Your task to perform on an android device: change your default location settings in chrome Image 0: 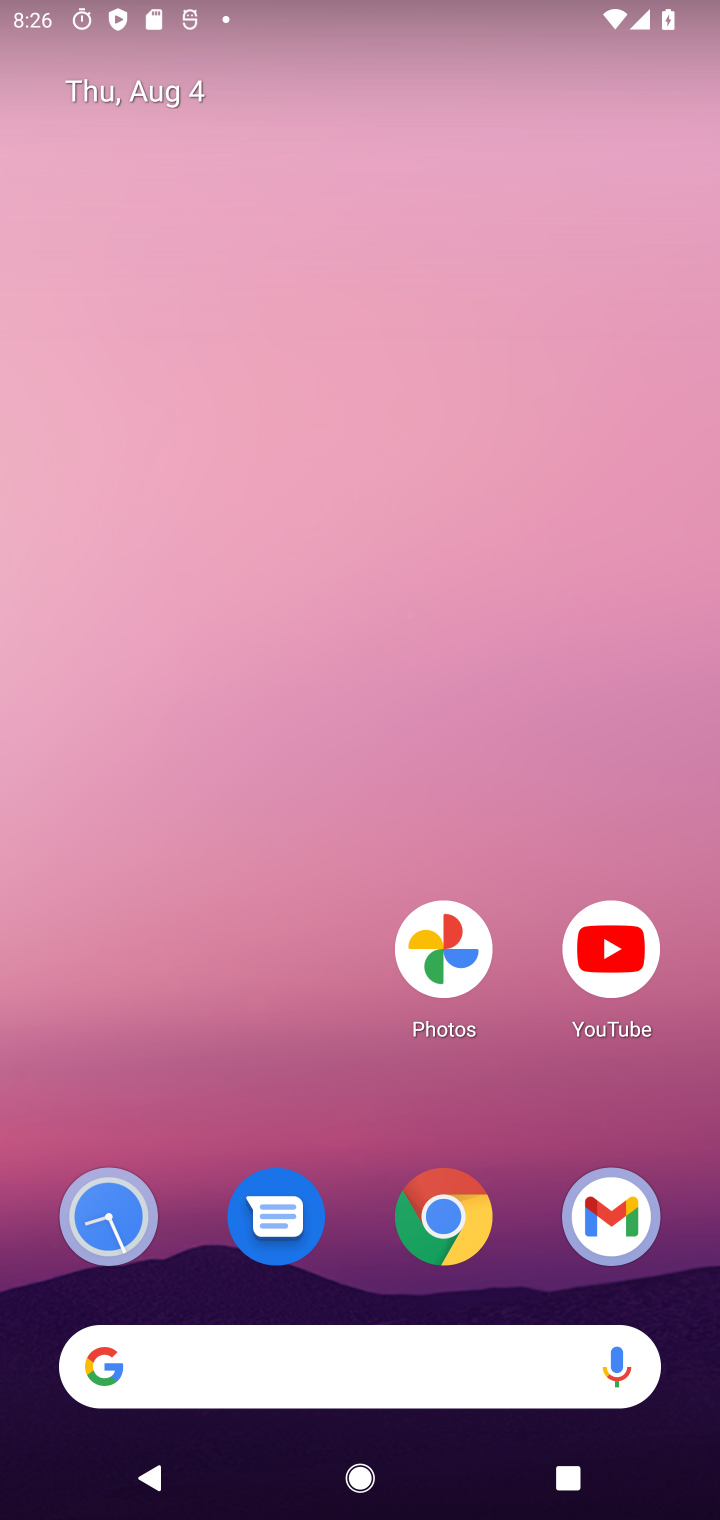
Step 0: drag from (342, 1303) to (358, 98)
Your task to perform on an android device: change your default location settings in chrome Image 1: 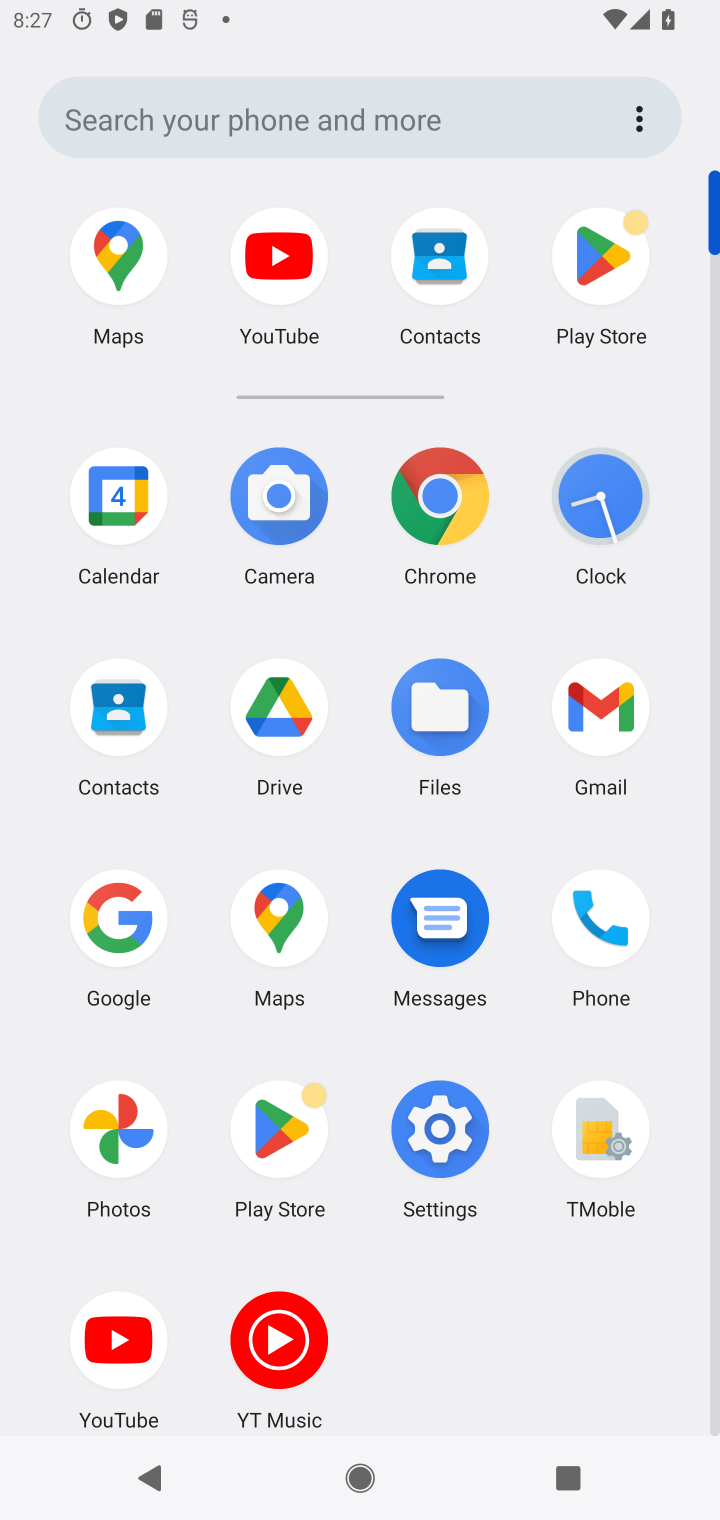
Step 1: click (437, 500)
Your task to perform on an android device: change your default location settings in chrome Image 2: 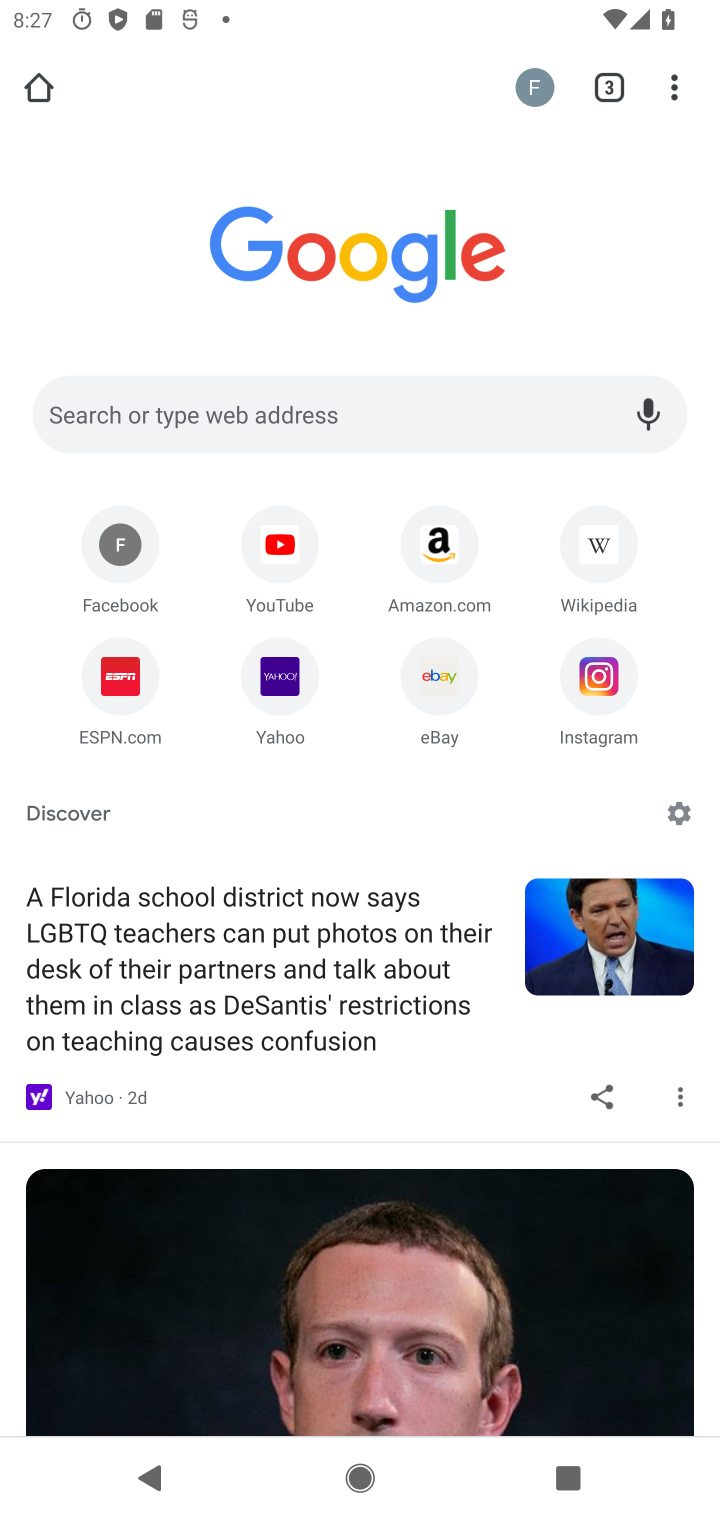
Step 2: click (672, 92)
Your task to perform on an android device: change your default location settings in chrome Image 3: 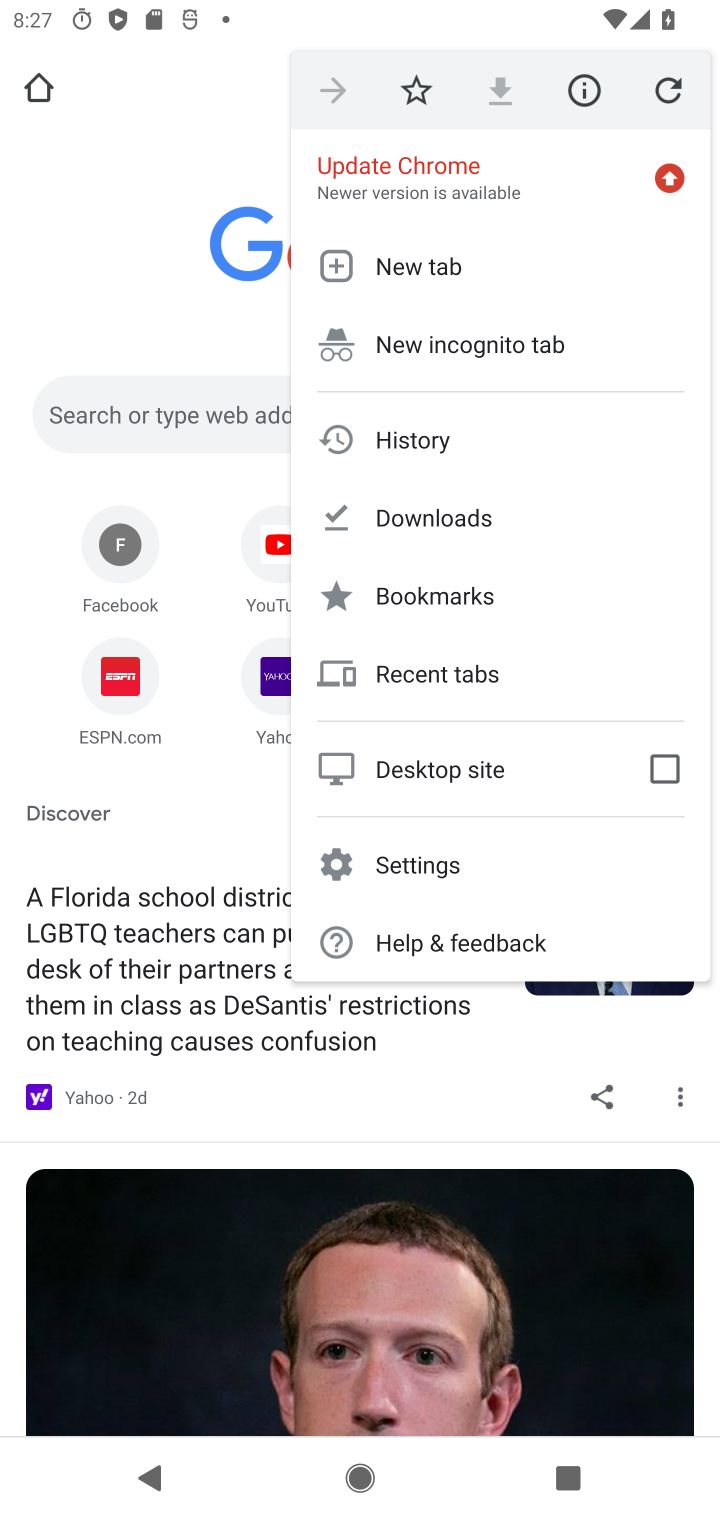
Step 3: click (404, 867)
Your task to perform on an android device: change your default location settings in chrome Image 4: 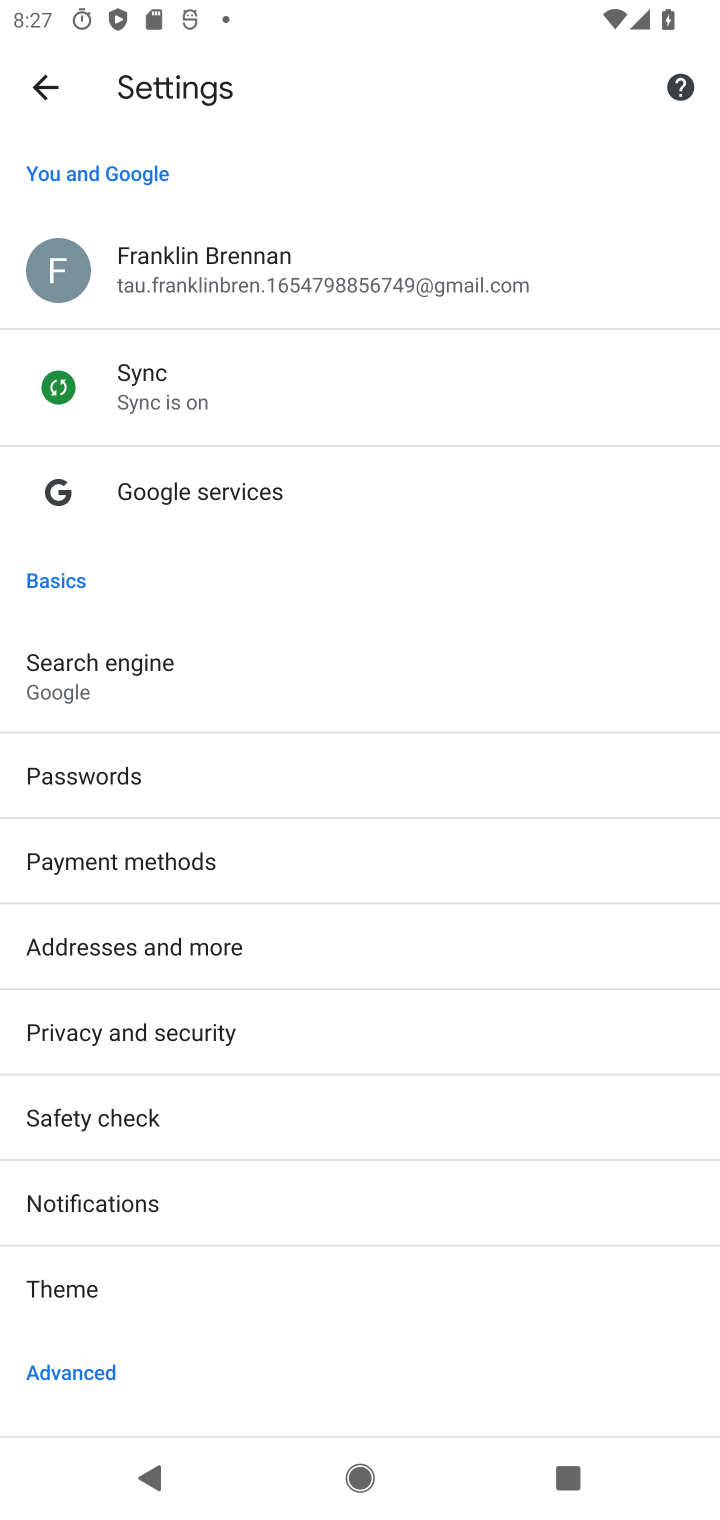
Step 4: drag from (304, 1339) to (355, 749)
Your task to perform on an android device: change your default location settings in chrome Image 5: 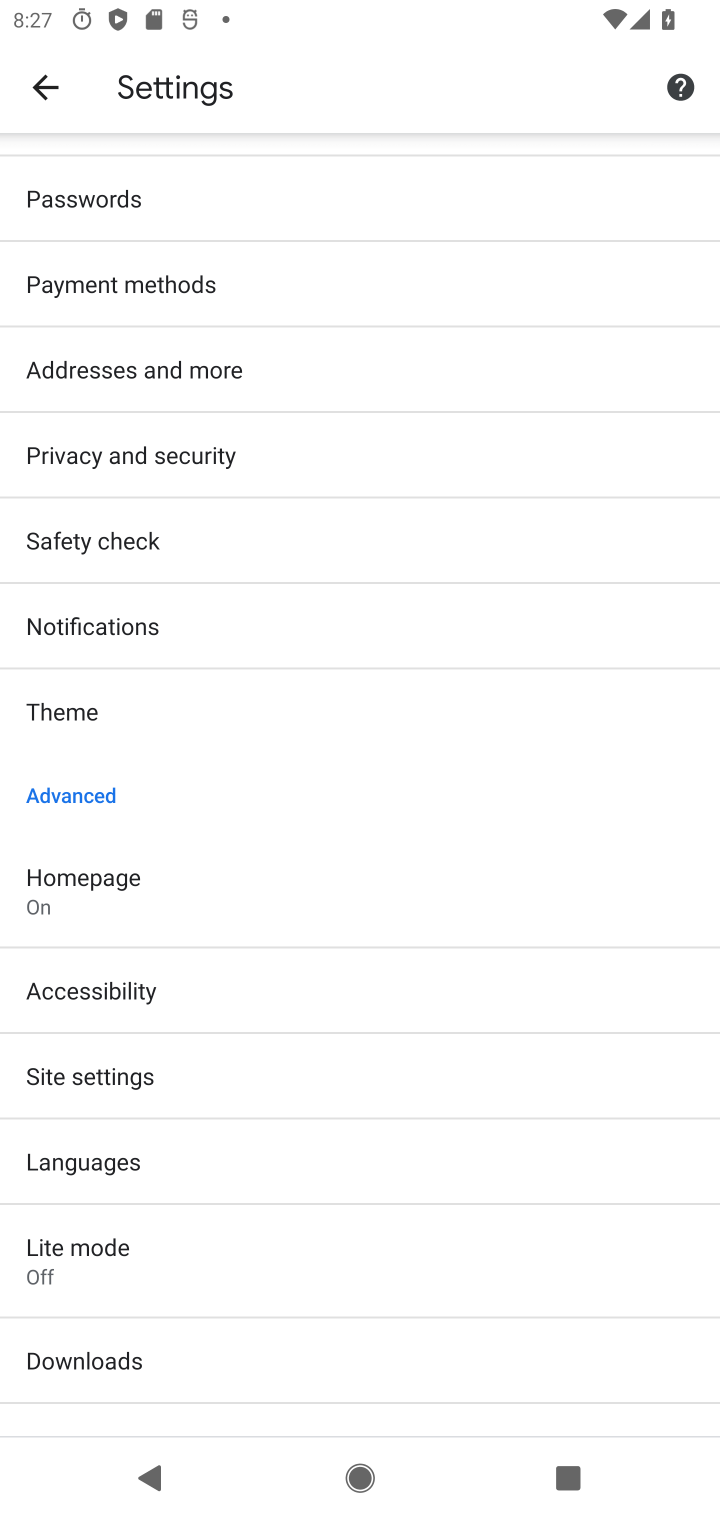
Step 5: click (138, 1083)
Your task to perform on an android device: change your default location settings in chrome Image 6: 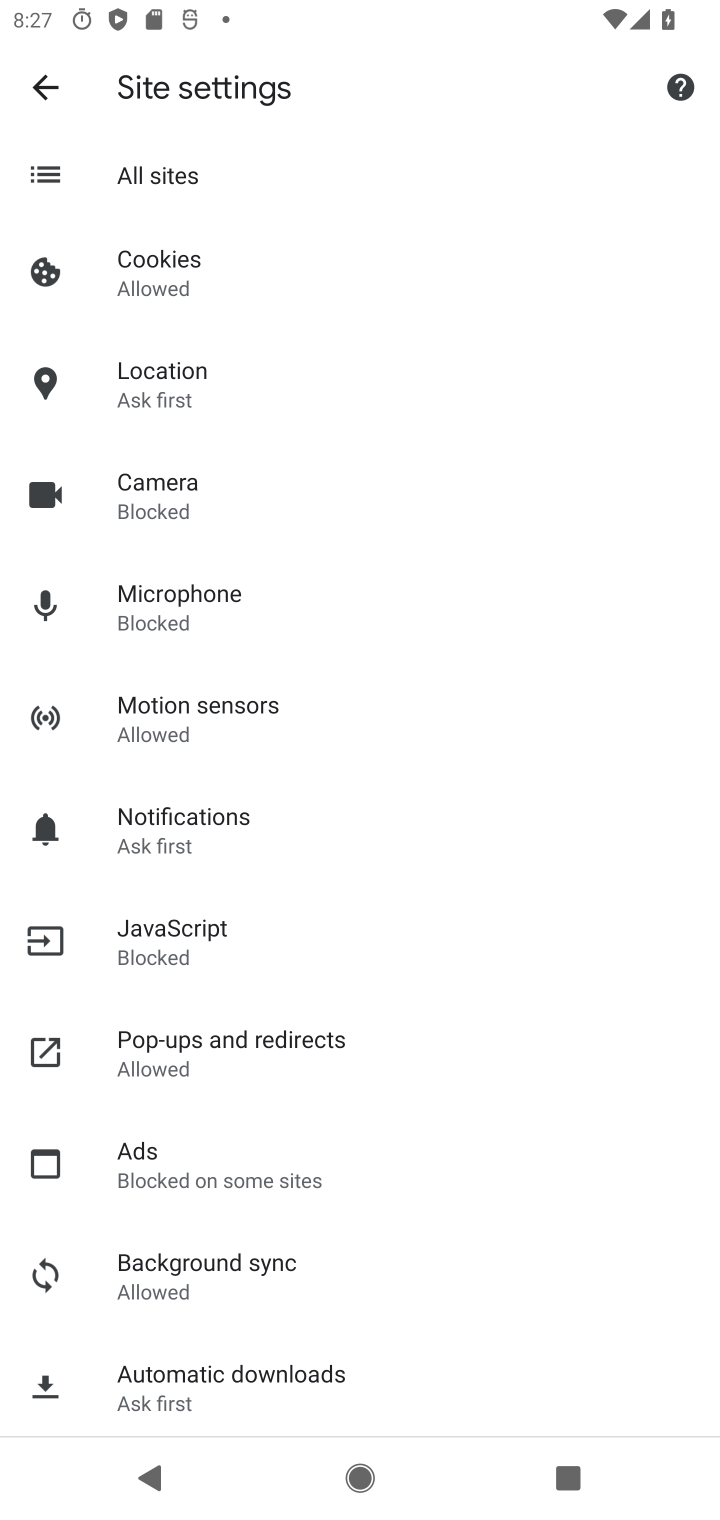
Step 6: click (146, 371)
Your task to perform on an android device: change your default location settings in chrome Image 7: 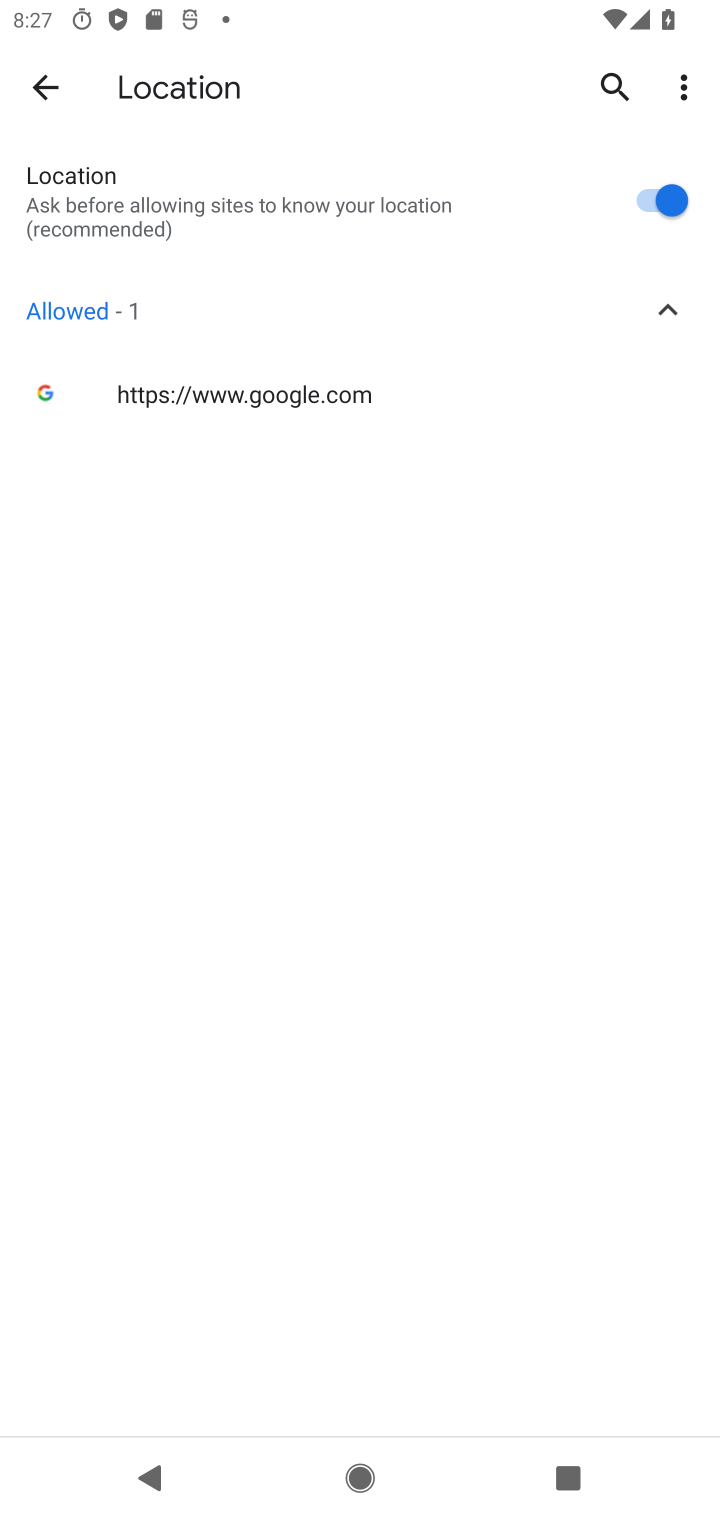
Step 7: click (654, 189)
Your task to perform on an android device: change your default location settings in chrome Image 8: 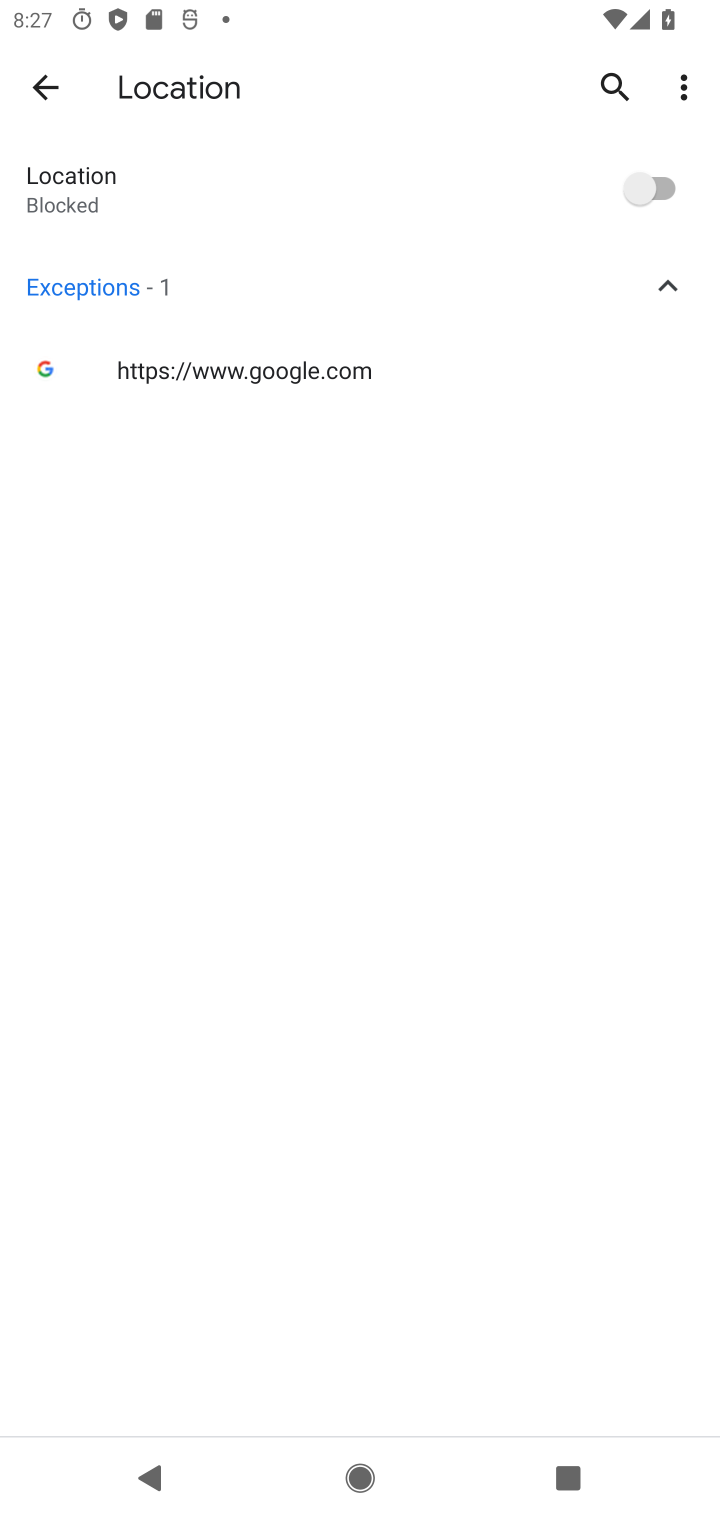
Step 8: task complete